Your task to perform on an android device: Go to Amazon Image 0: 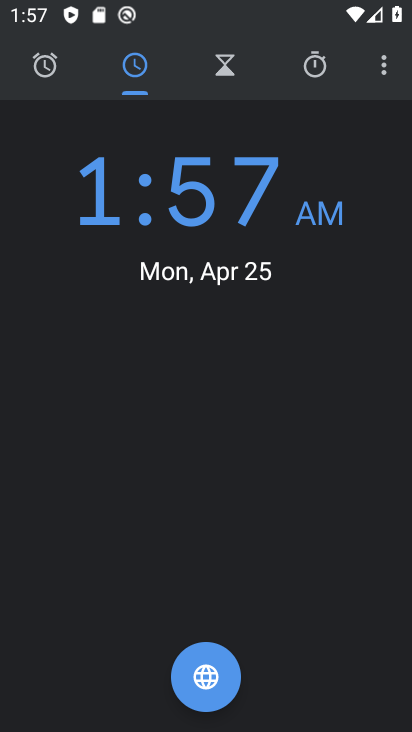
Step 0: press home button
Your task to perform on an android device: Go to Amazon Image 1: 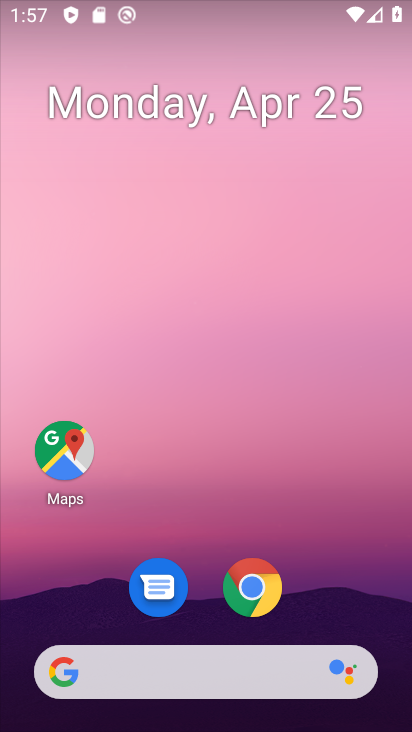
Step 1: drag from (302, 572) to (280, 113)
Your task to perform on an android device: Go to Amazon Image 2: 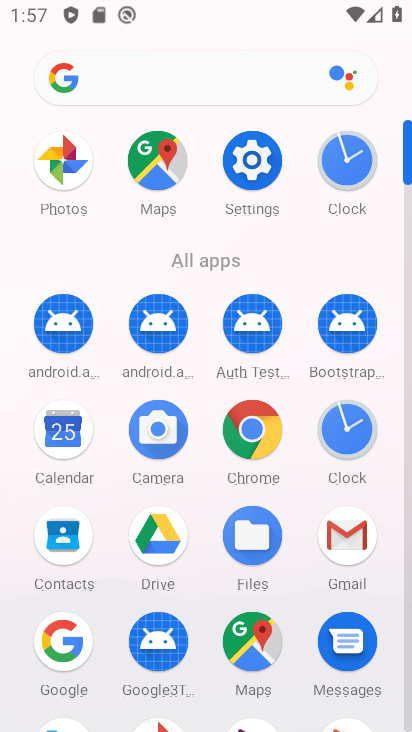
Step 2: click (258, 432)
Your task to perform on an android device: Go to Amazon Image 3: 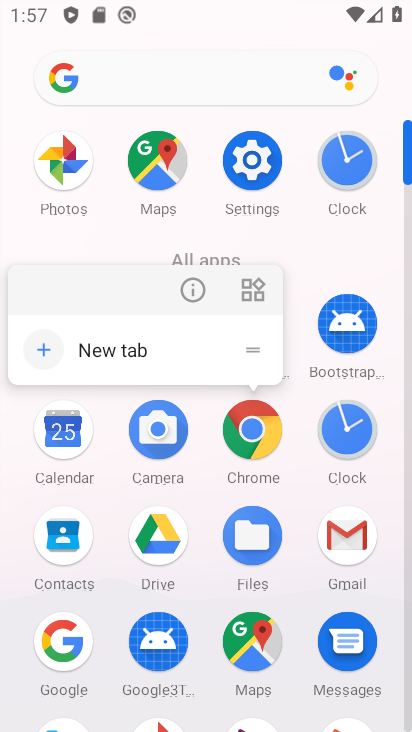
Step 3: click (259, 431)
Your task to perform on an android device: Go to Amazon Image 4: 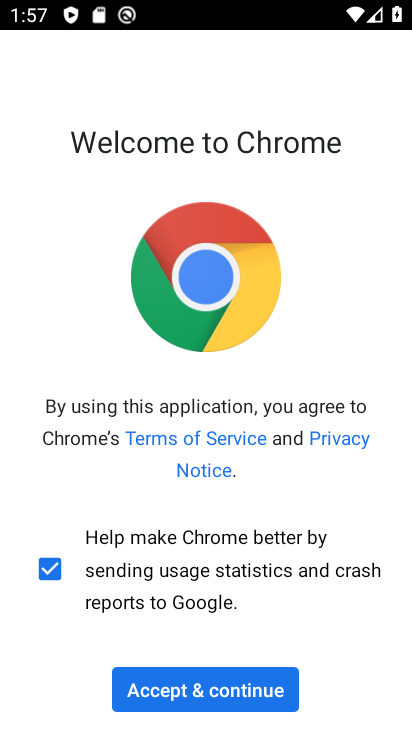
Step 4: click (208, 680)
Your task to perform on an android device: Go to Amazon Image 5: 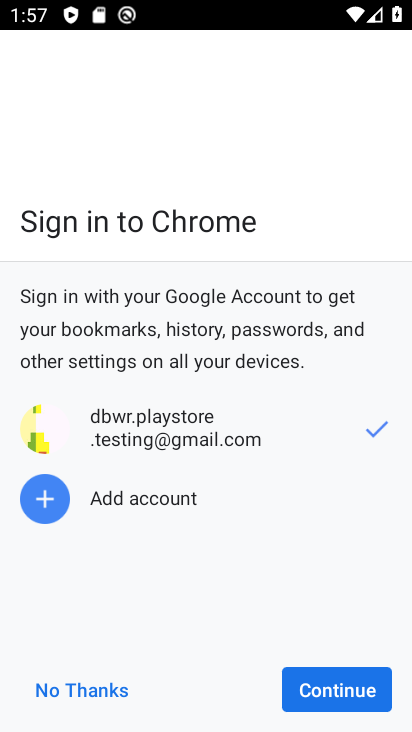
Step 5: click (342, 693)
Your task to perform on an android device: Go to Amazon Image 6: 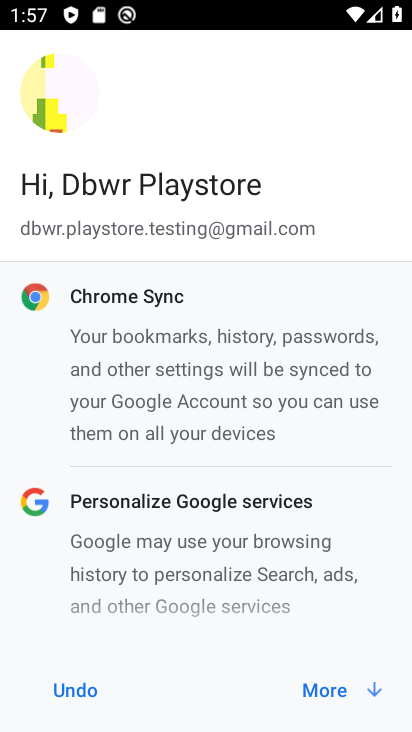
Step 6: click (286, 681)
Your task to perform on an android device: Go to Amazon Image 7: 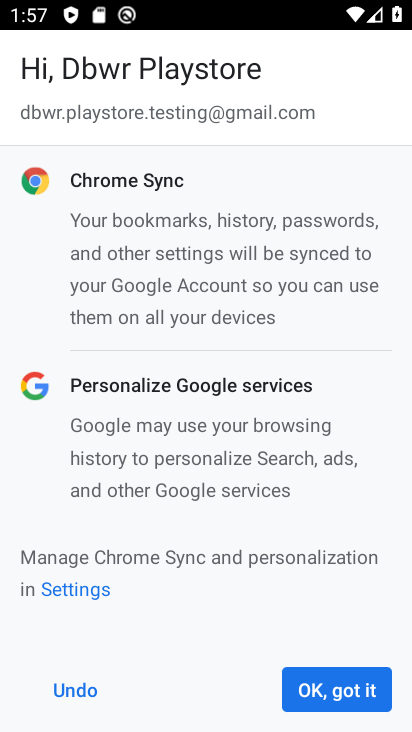
Step 7: click (311, 684)
Your task to perform on an android device: Go to Amazon Image 8: 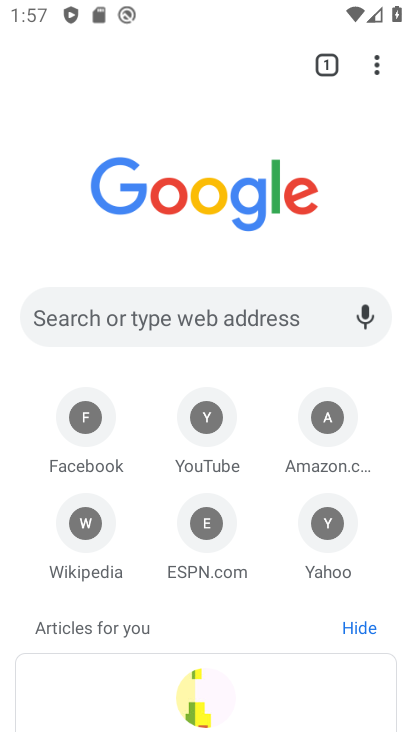
Step 8: click (183, 65)
Your task to perform on an android device: Go to Amazon Image 9: 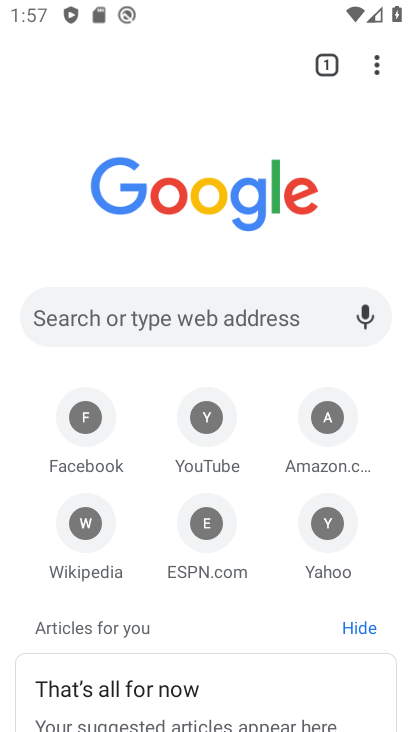
Step 9: click (239, 291)
Your task to perform on an android device: Go to Amazon Image 10: 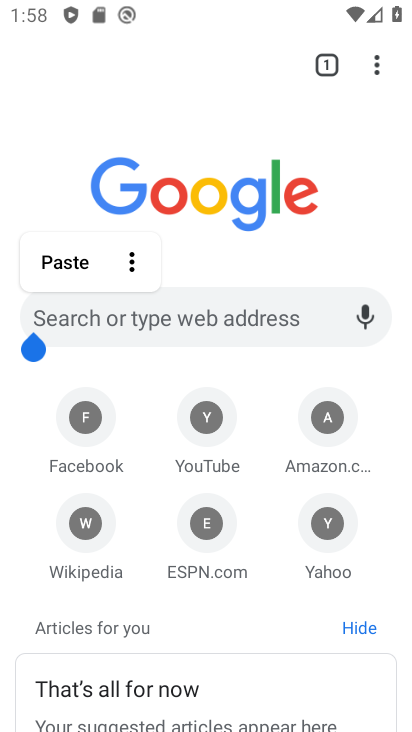
Step 10: click (324, 407)
Your task to perform on an android device: Go to Amazon Image 11: 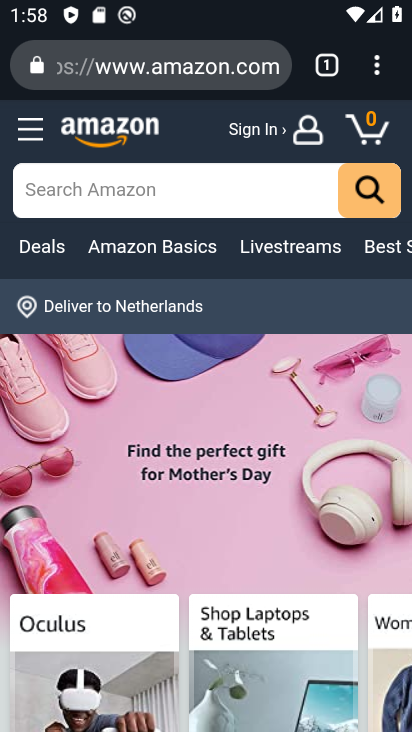
Step 11: task complete